Your task to perform on an android device: toggle priority inbox in the gmail app Image 0: 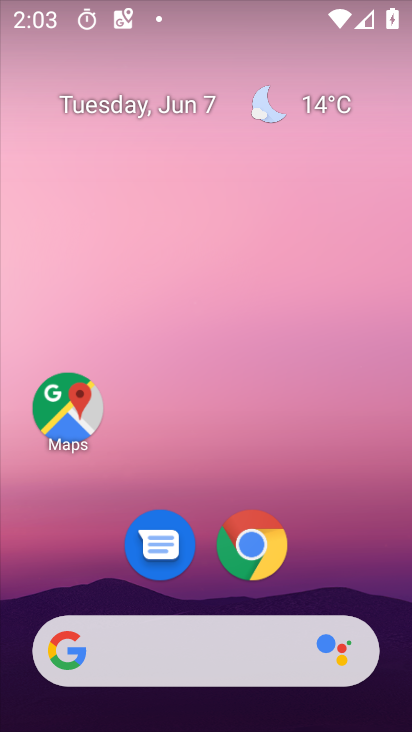
Step 0: drag from (355, 435) to (26, 215)
Your task to perform on an android device: toggle priority inbox in the gmail app Image 1: 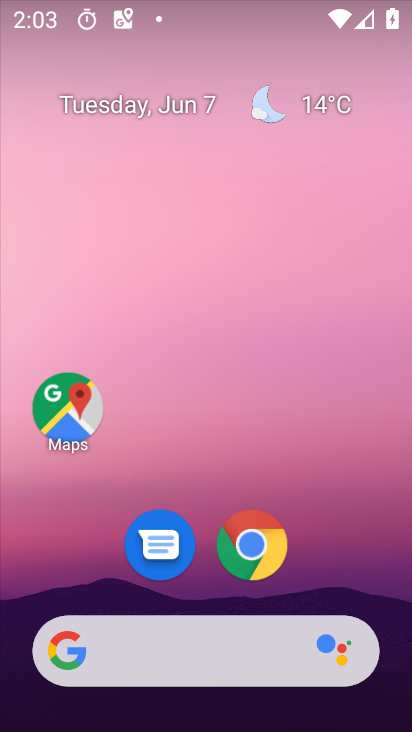
Step 1: drag from (311, 420) to (192, 68)
Your task to perform on an android device: toggle priority inbox in the gmail app Image 2: 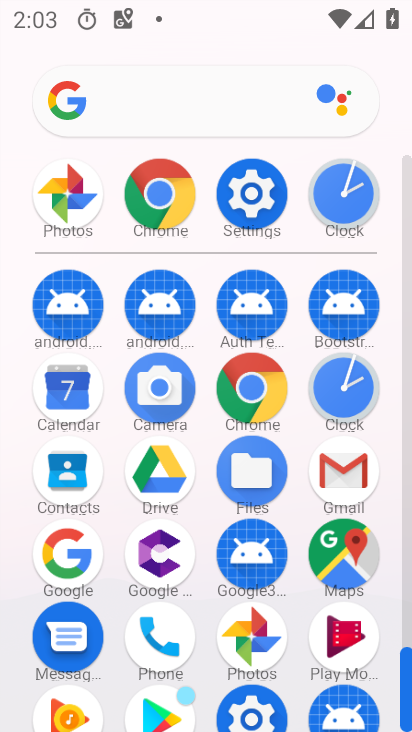
Step 2: click (349, 464)
Your task to perform on an android device: toggle priority inbox in the gmail app Image 3: 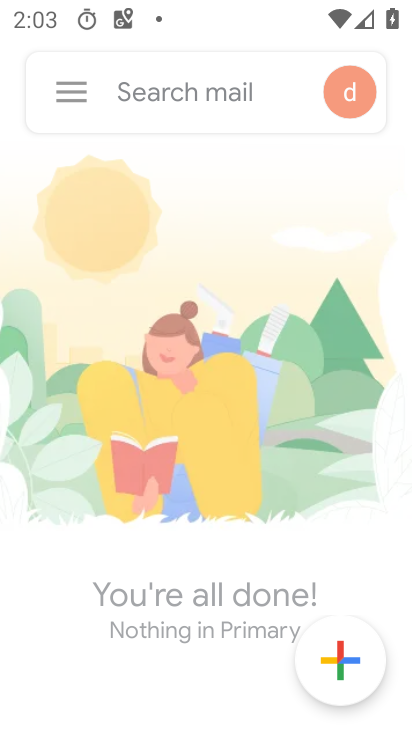
Step 3: click (64, 96)
Your task to perform on an android device: toggle priority inbox in the gmail app Image 4: 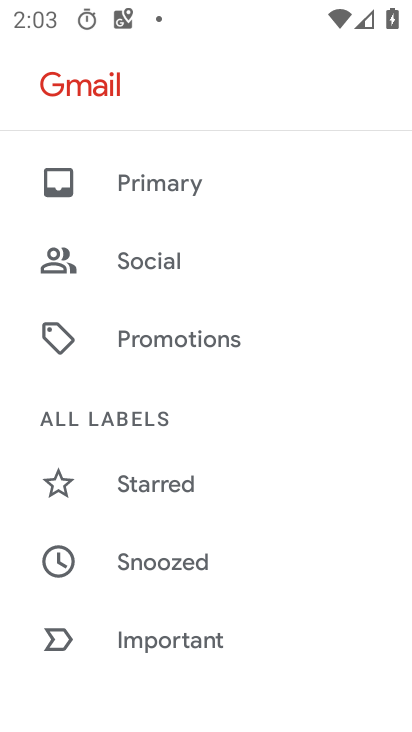
Step 4: drag from (282, 477) to (217, 37)
Your task to perform on an android device: toggle priority inbox in the gmail app Image 5: 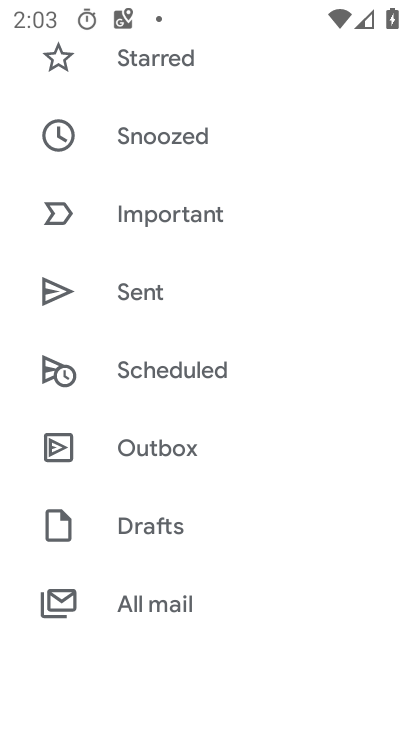
Step 5: drag from (274, 393) to (282, 43)
Your task to perform on an android device: toggle priority inbox in the gmail app Image 6: 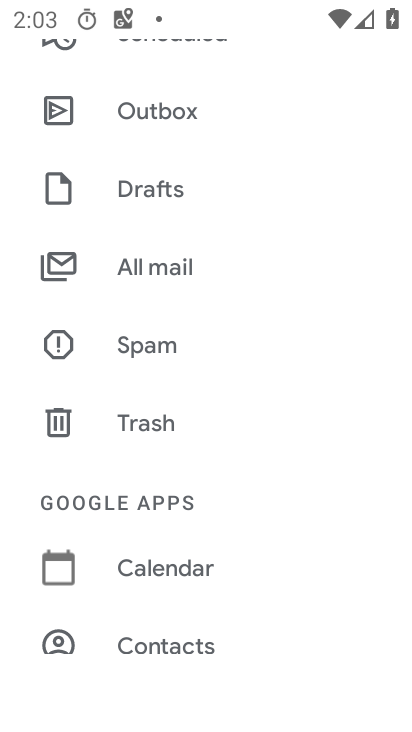
Step 6: drag from (235, 613) to (232, 131)
Your task to perform on an android device: toggle priority inbox in the gmail app Image 7: 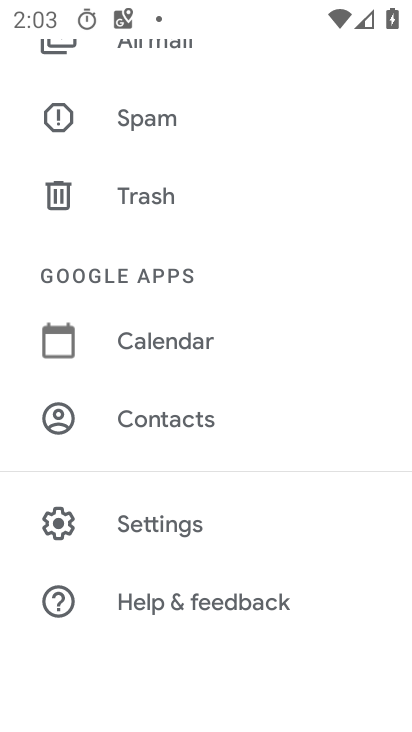
Step 7: click (229, 536)
Your task to perform on an android device: toggle priority inbox in the gmail app Image 8: 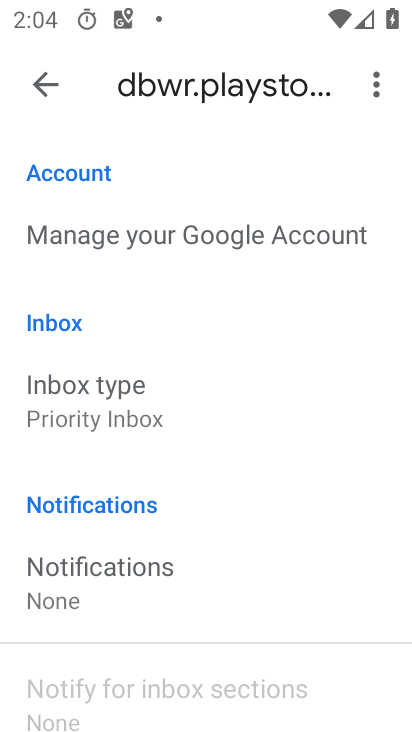
Step 8: click (125, 405)
Your task to perform on an android device: toggle priority inbox in the gmail app Image 9: 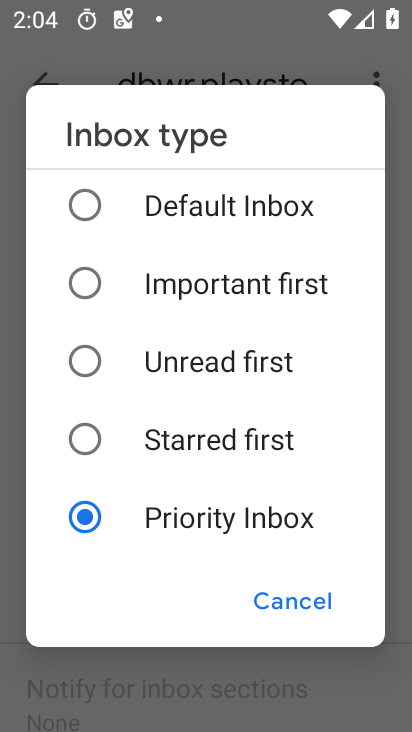
Step 9: click (178, 249)
Your task to perform on an android device: toggle priority inbox in the gmail app Image 10: 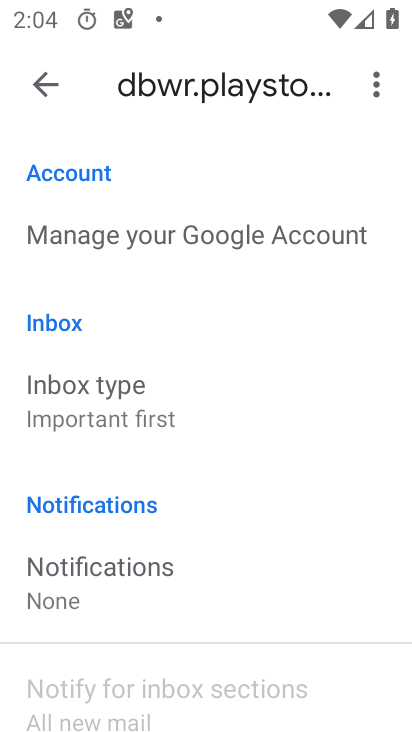
Step 10: click (199, 391)
Your task to perform on an android device: toggle priority inbox in the gmail app Image 11: 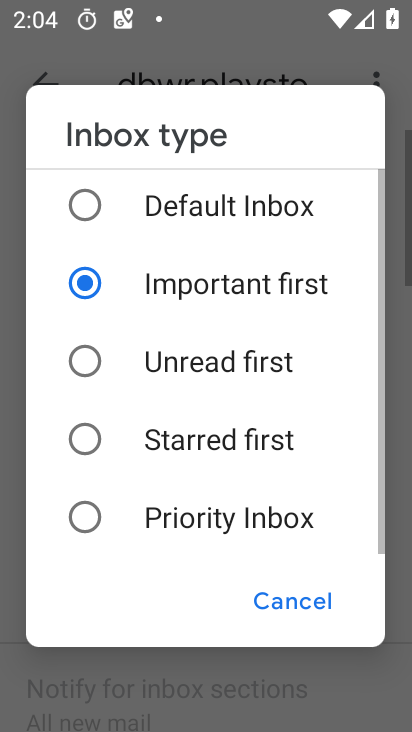
Step 11: click (201, 525)
Your task to perform on an android device: toggle priority inbox in the gmail app Image 12: 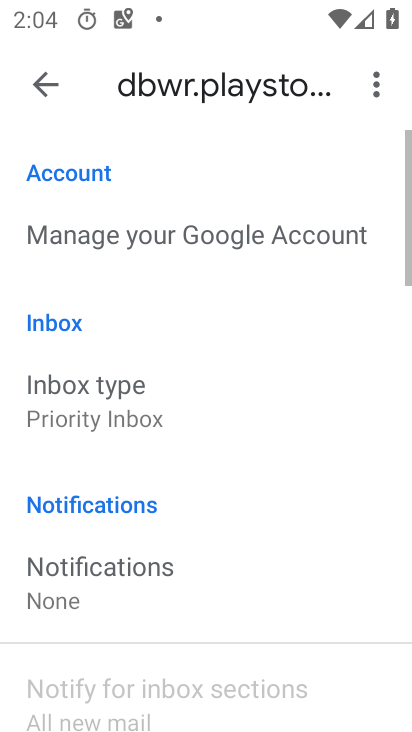
Step 12: task complete